Your task to perform on an android device: see creations saved in the google photos Image 0: 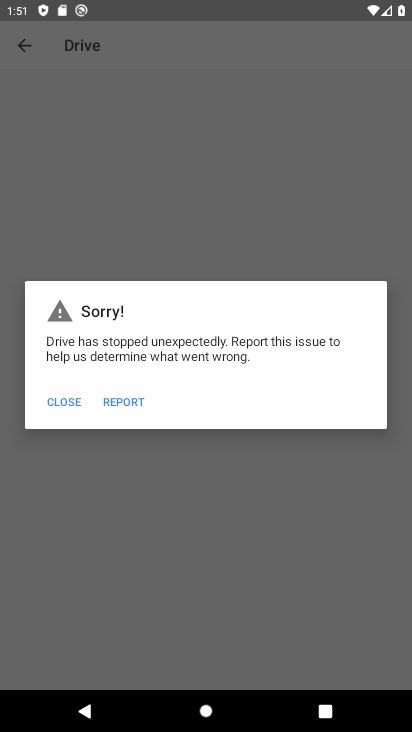
Step 0: drag from (241, 568) to (410, 344)
Your task to perform on an android device: see creations saved in the google photos Image 1: 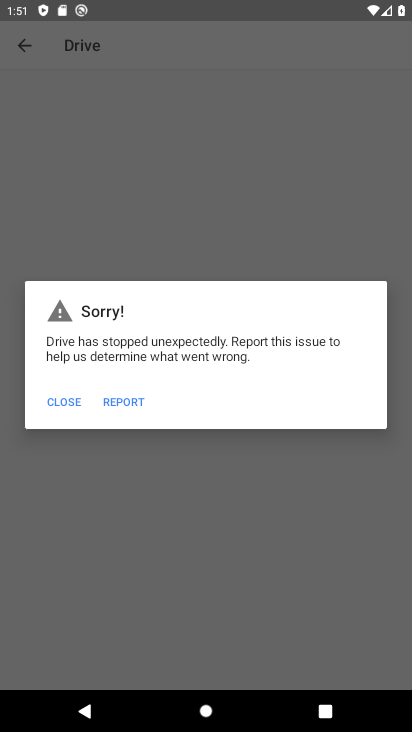
Step 1: press home button
Your task to perform on an android device: see creations saved in the google photos Image 2: 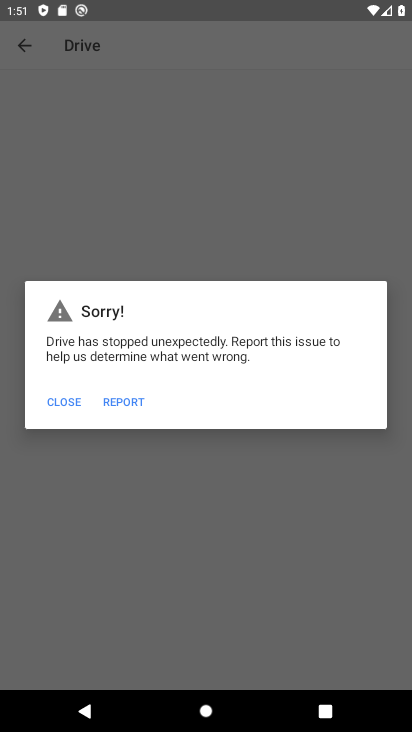
Step 2: click (408, 374)
Your task to perform on an android device: see creations saved in the google photos Image 3: 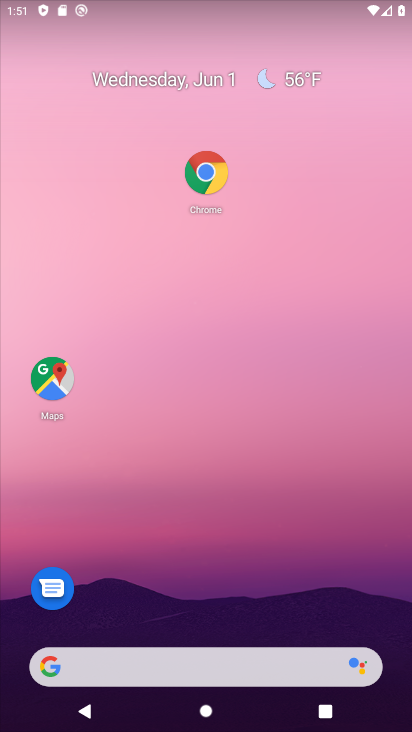
Step 3: drag from (208, 572) to (242, 36)
Your task to perform on an android device: see creations saved in the google photos Image 4: 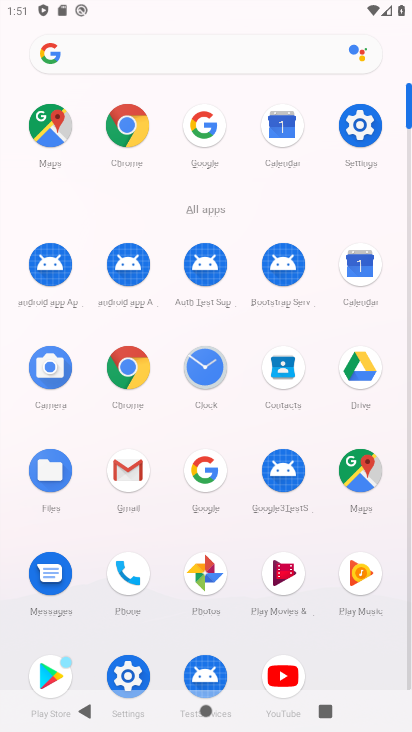
Step 4: click (201, 574)
Your task to perform on an android device: see creations saved in the google photos Image 5: 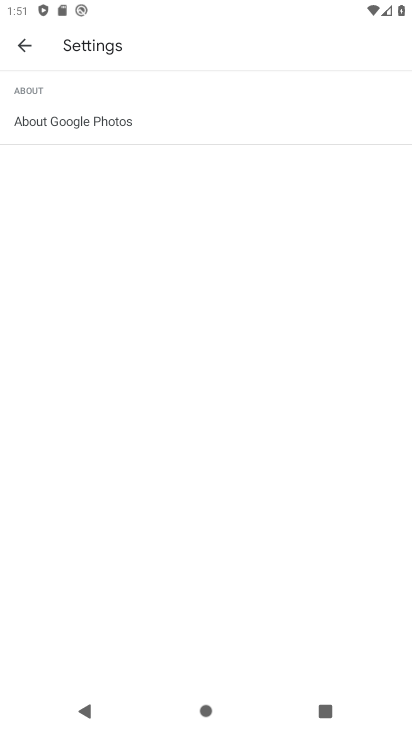
Step 5: press back button
Your task to perform on an android device: see creations saved in the google photos Image 6: 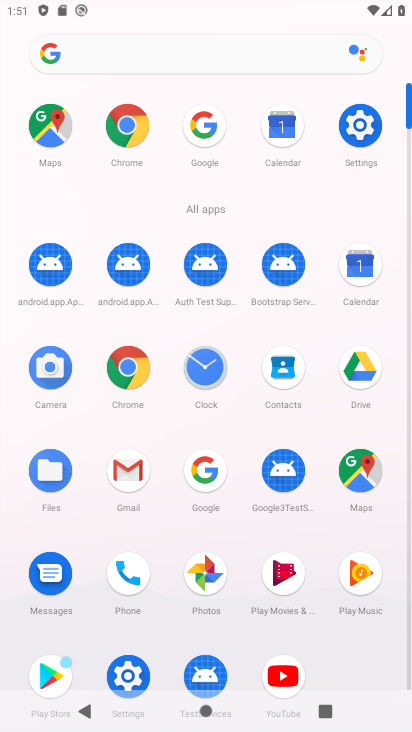
Step 6: click (198, 570)
Your task to perform on an android device: see creations saved in the google photos Image 7: 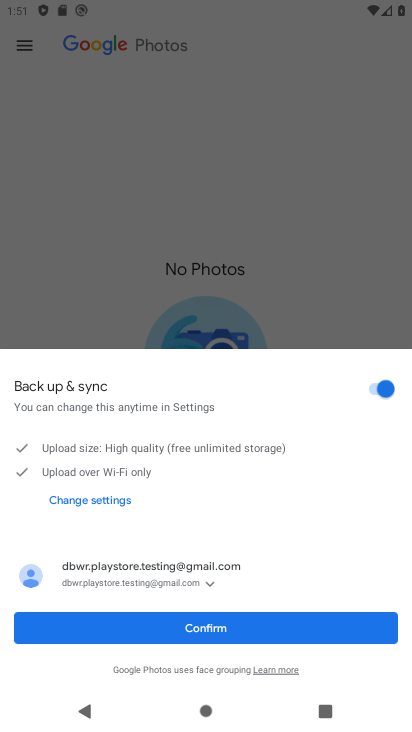
Step 7: click (188, 631)
Your task to perform on an android device: see creations saved in the google photos Image 8: 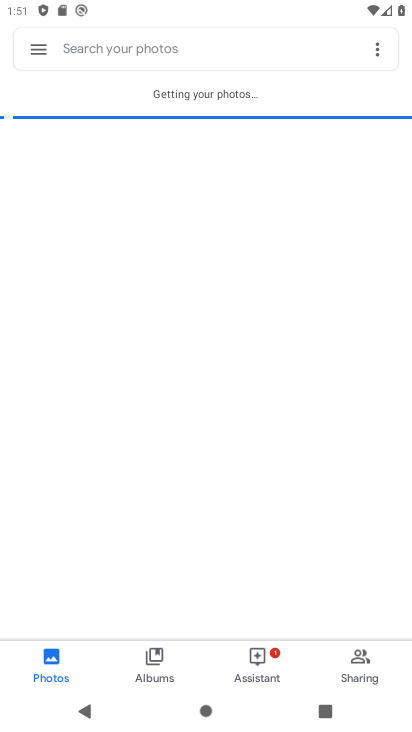
Step 8: click (185, 49)
Your task to perform on an android device: see creations saved in the google photos Image 9: 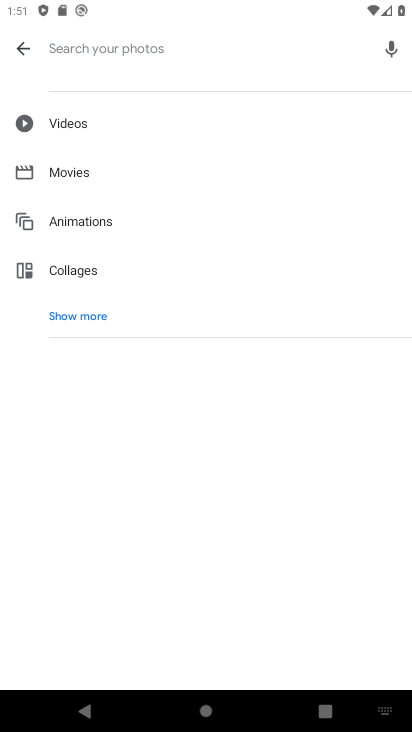
Step 9: click (74, 332)
Your task to perform on an android device: see creations saved in the google photos Image 10: 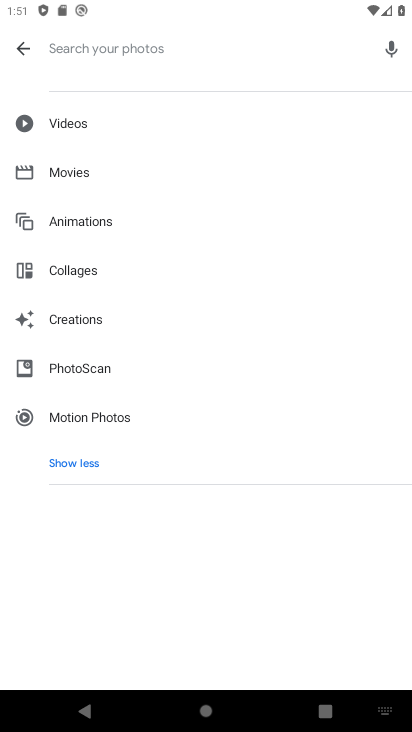
Step 10: click (31, 325)
Your task to perform on an android device: see creations saved in the google photos Image 11: 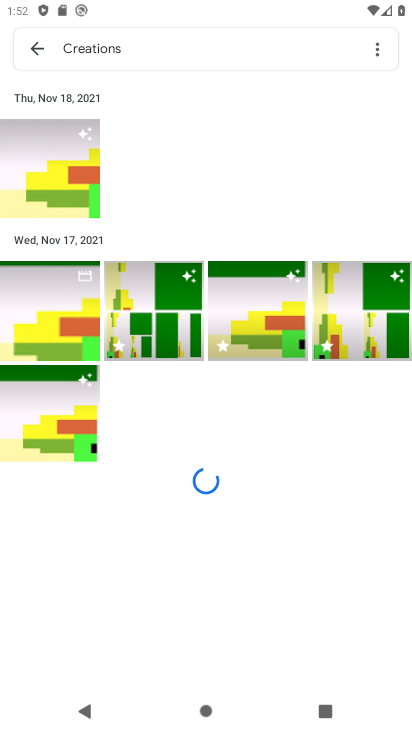
Step 11: task complete